Your task to perform on an android device: Go to privacy settings Image 0: 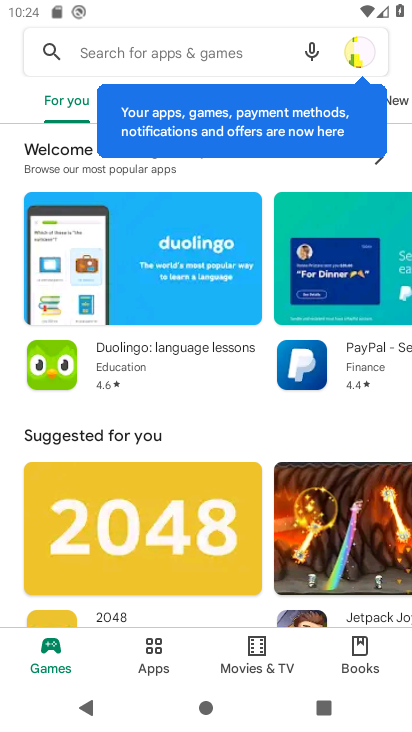
Step 0: press home button
Your task to perform on an android device: Go to privacy settings Image 1: 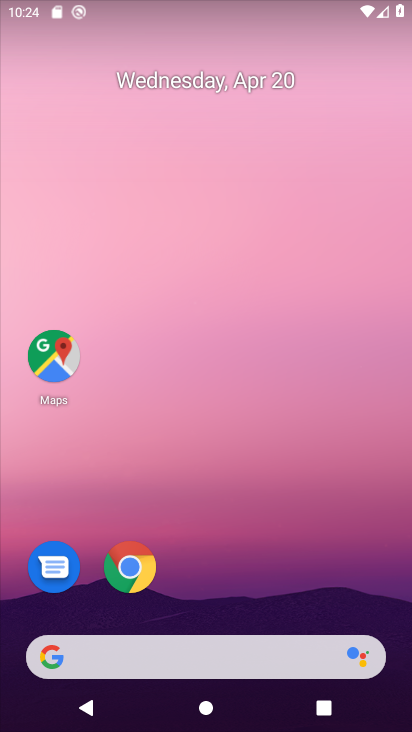
Step 1: drag from (211, 576) to (228, 23)
Your task to perform on an android device: Go to privacy settings Image 2: 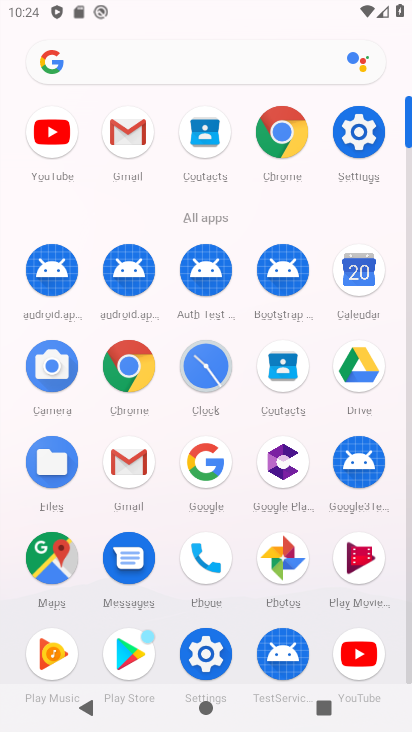
Step 2: click (358, 135)
Your task to perform on an android device: Go to privacy settings Image 3: 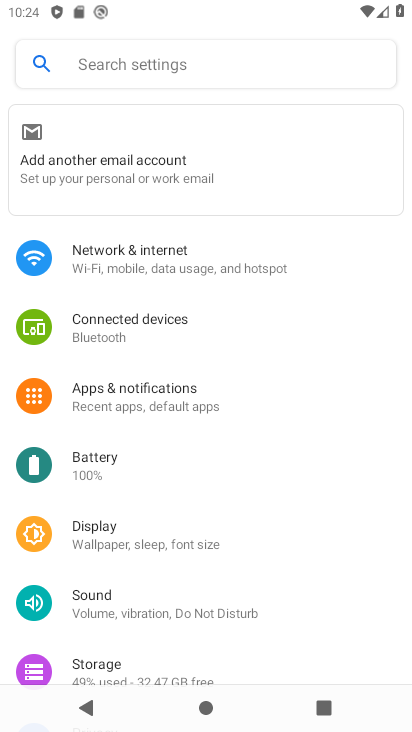
Step 3: drag from (156, 457) to (186, 373)
Your task to perform on an android device: Go to privacy settings Image 4: 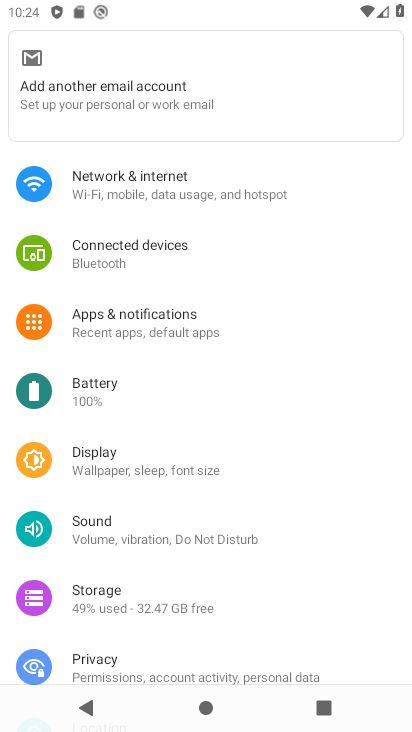
Step 4: drag from (170, 441) to (219, 318)
Your task to perform on an android device: Go to privacy settings Image 5: 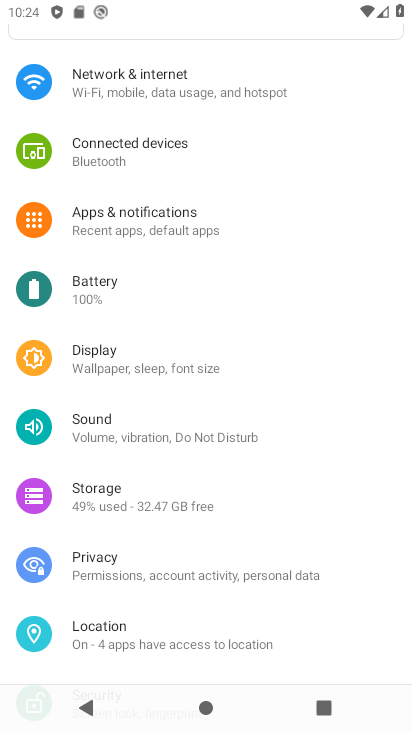
Step 5: drag from (146, 416) to (175, 309)
Your task to perform on an android device: Go to privacy settings Image 6: 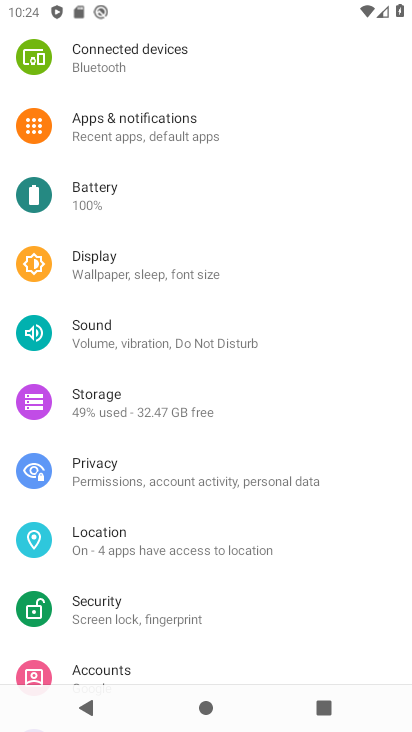
Step 6: click (133, 478)
Your task to perform on an android device: Go to privacy settings Image 7: 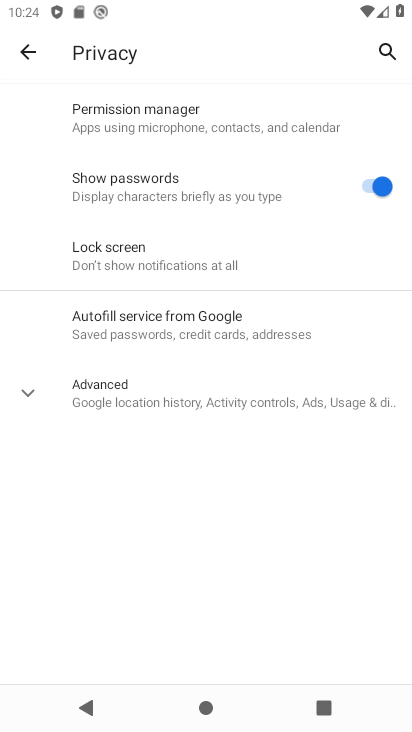
Step 7: task complete